Your task to perform on an android device: What's the weather? Image 0: 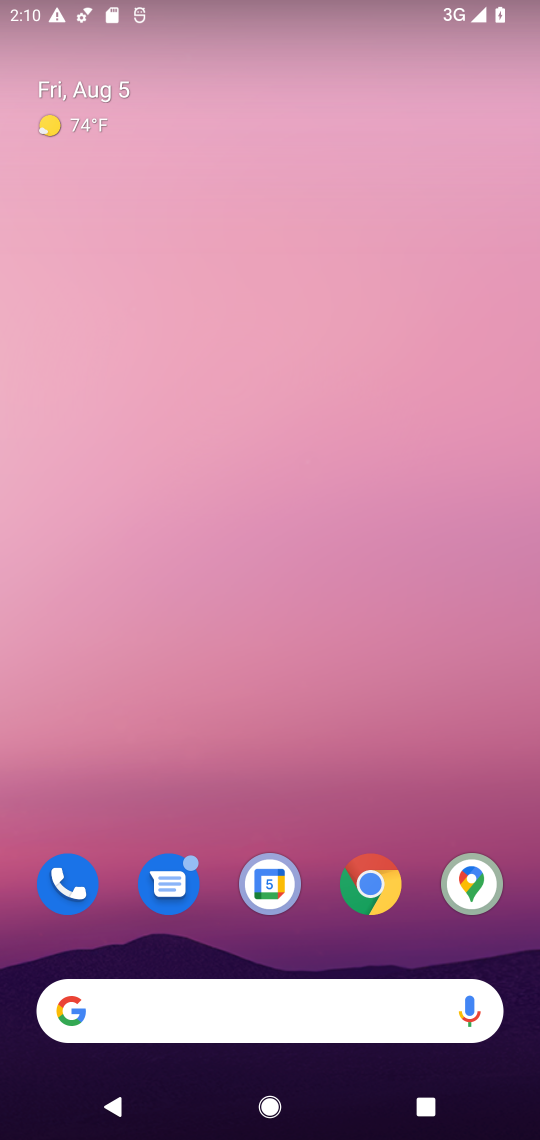
Step 0: drag from (416, 815) to (211, 107)
Your task to perform on an android device: What's the weather? Image 1: 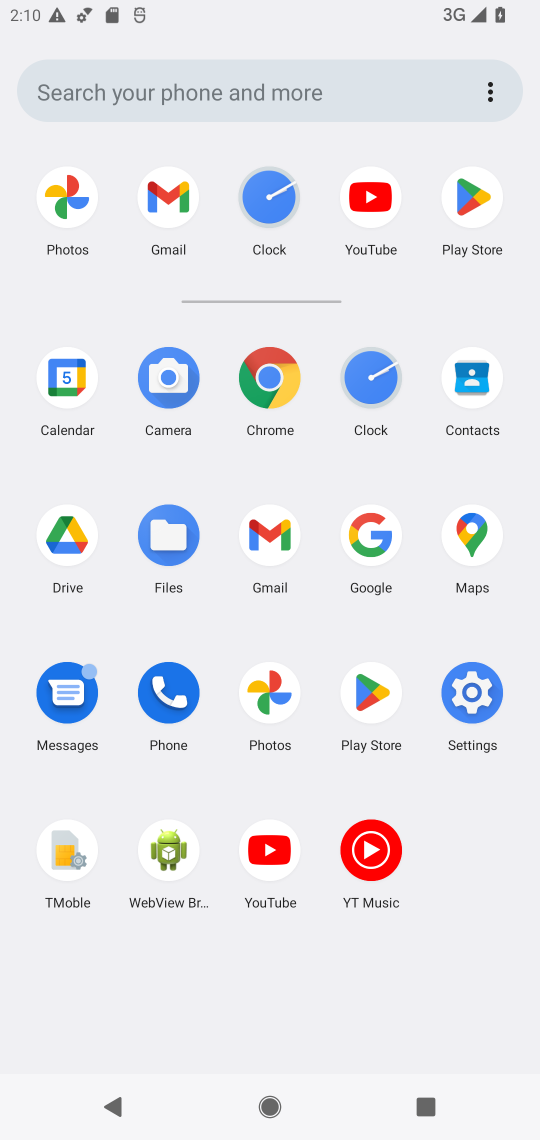
Step 1: click (381, 551)
Your task to perform on an android device: What's the weather? Image 2: 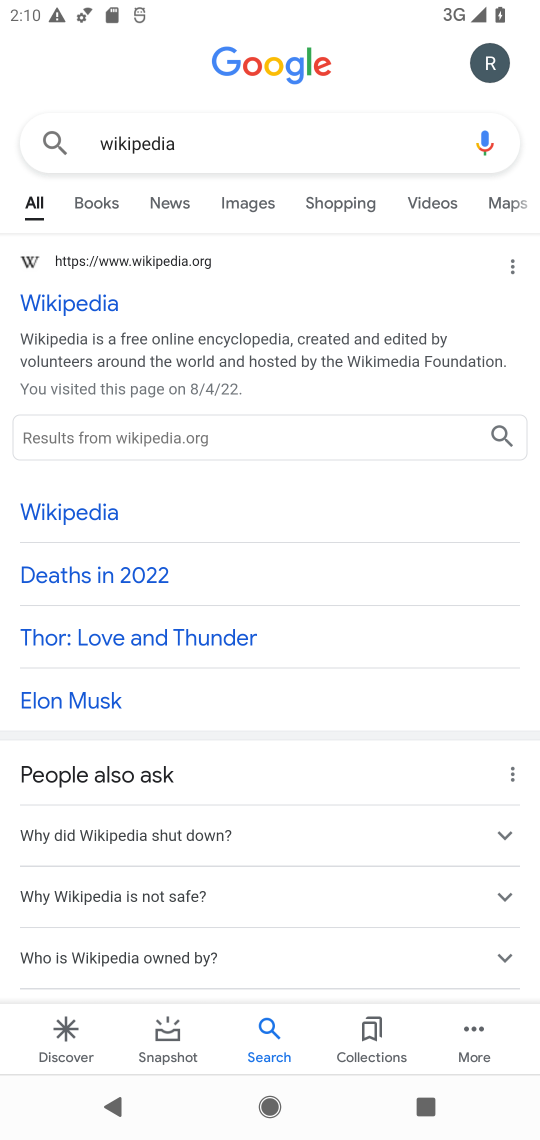
Step 2: press back button
Your task to perform on an android device: What's the weather? Image 3: 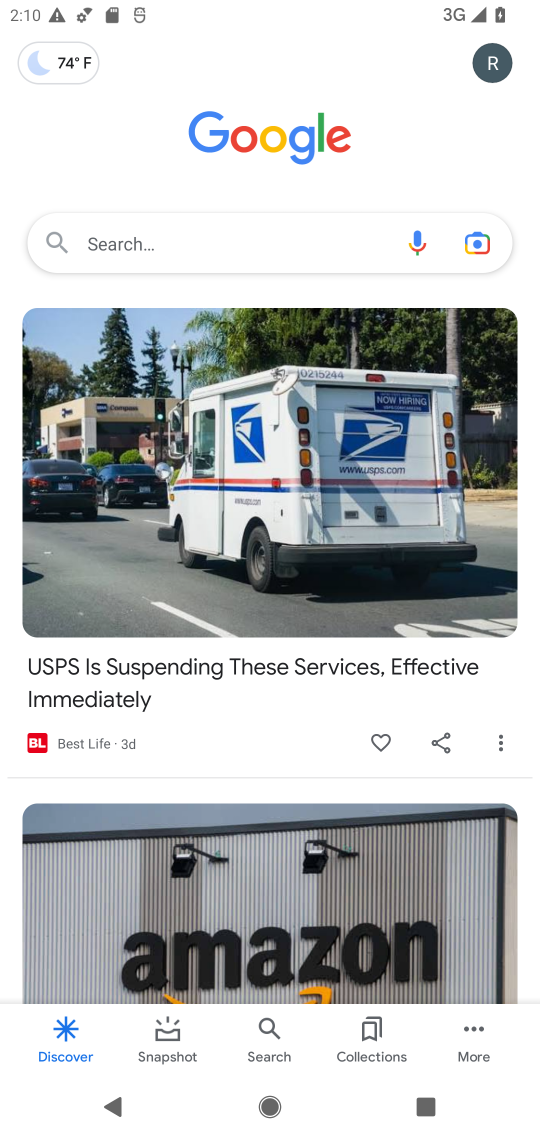
Step 3: click (249, 234)
Your task to perform on an android device: What's the weather? Image 4: 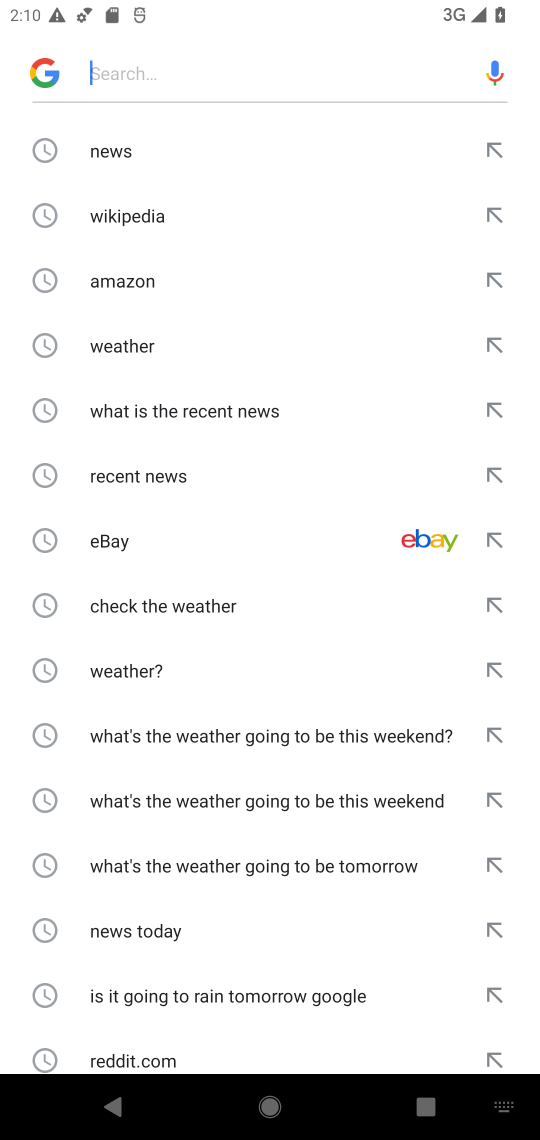
Step 4: type "What's the weather?"
Your task to perform on an android device: What's the weather? Image 5: 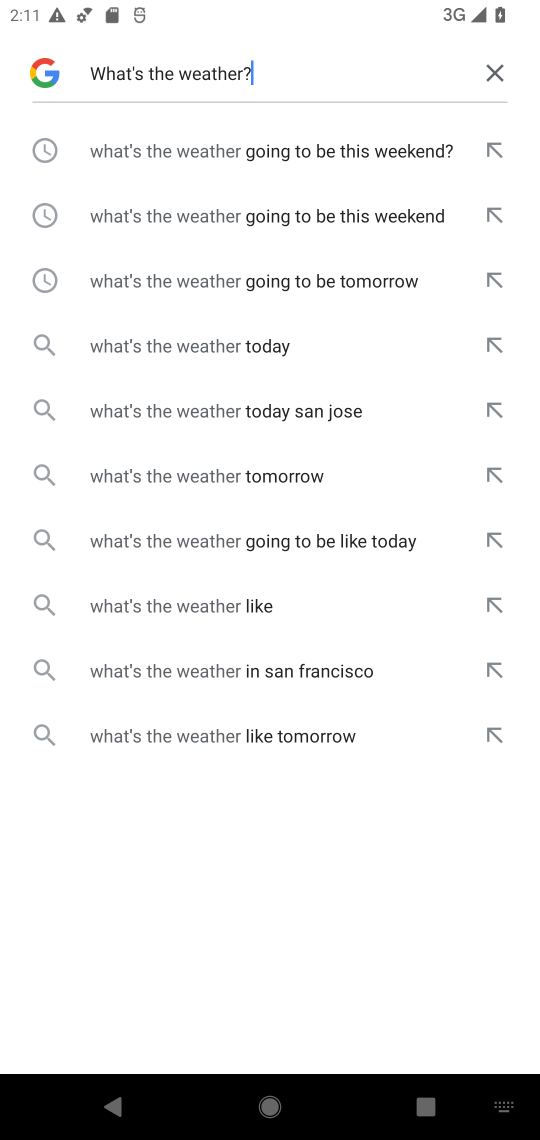
Step 5: task complete